Your task to perform on an android device: Open Google Chrome Image 0: 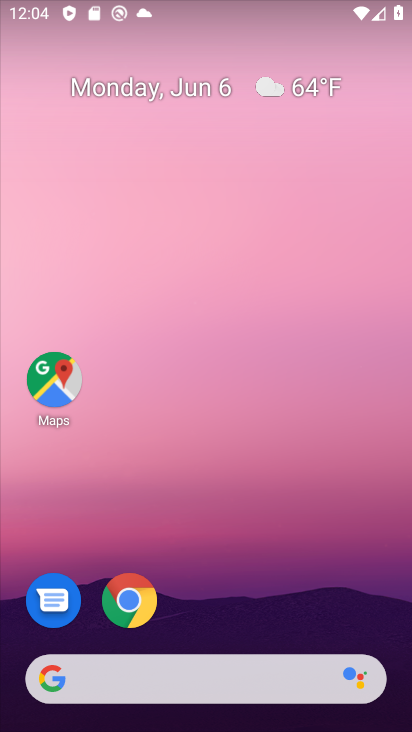
Step 0: drag from (388, 478) to (357, 188)
Your task to perform on an android device: Open Google Chrome Image 1: 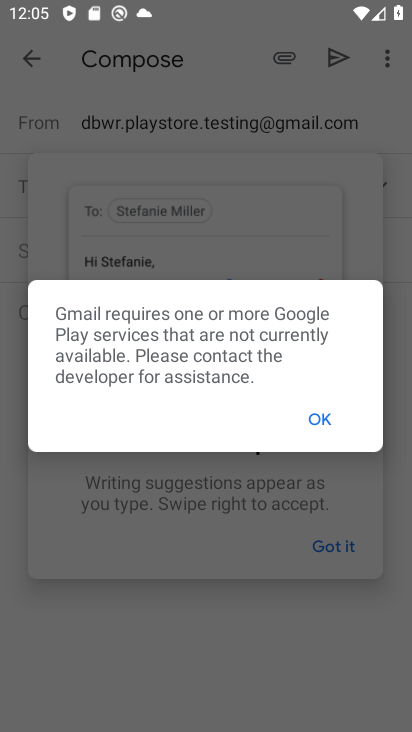
Step 1: press home button
Your task to perform on an android device: Open Google Chrome Image 2: 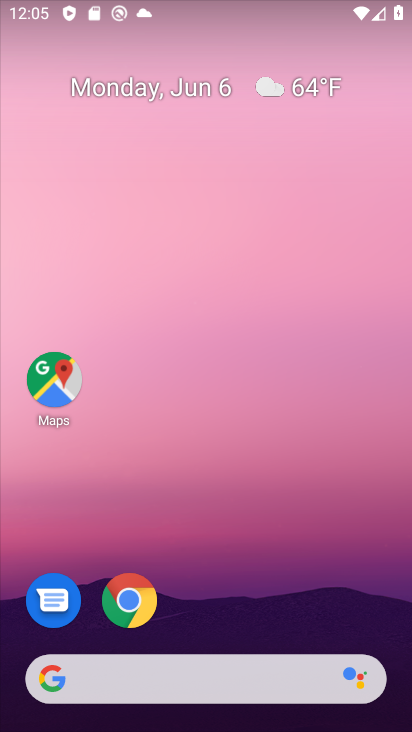
Step 2: drag from (400, 687) to (362, 246)
Your task to perform on an android device: Open Google Chrome Image 3: 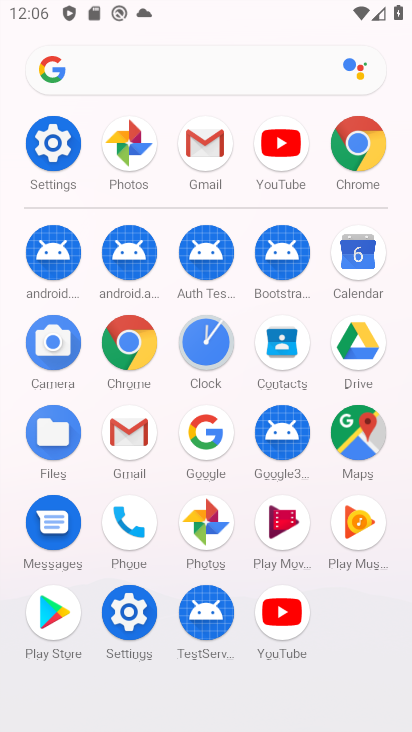
Step 3: click (204, 450)
Your task to perform on an android device: Open Google Chrome Image 4: 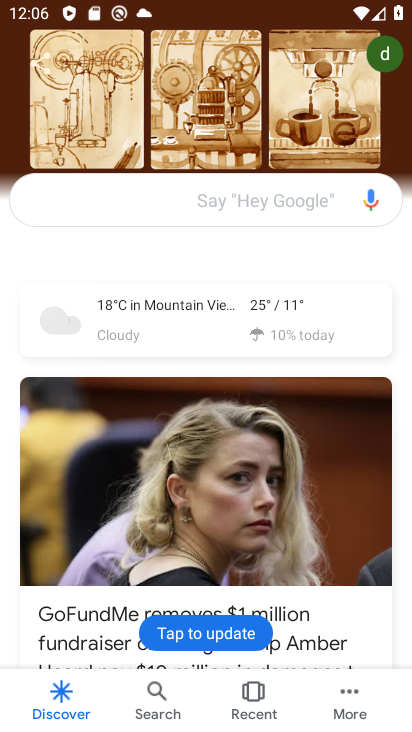
Step 4: task complete